Your task to perform on an android device: Go to Google Image 0: 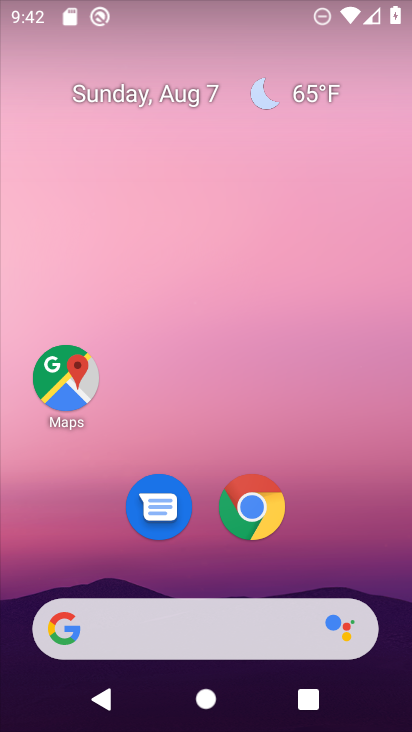
Step 0: drag from (323, 521) to (255, 134)
Your task to perform on an android device: Go to Google Image 1: 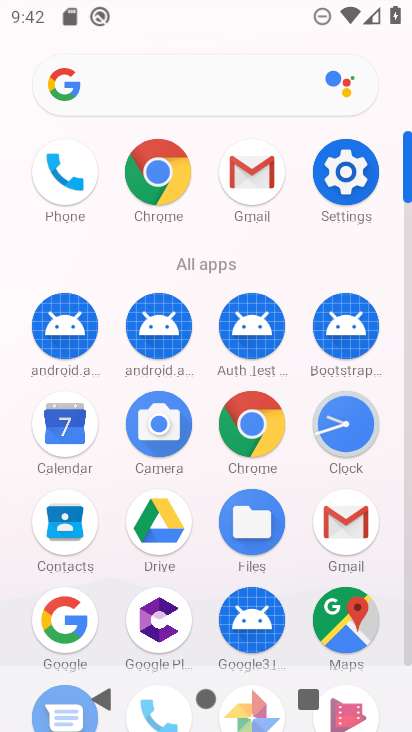
Step 1: click (256, 121)
Your task to perform on an android device: Go to Google Image 2: 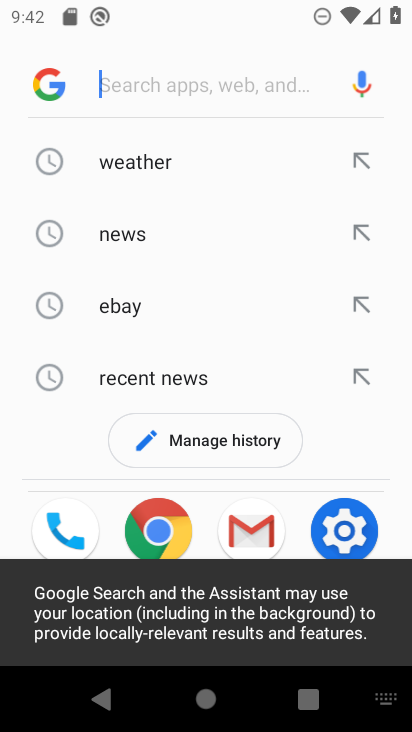
Step 2: press home button
Your task to perform on an android device: Go to Google Image 3: 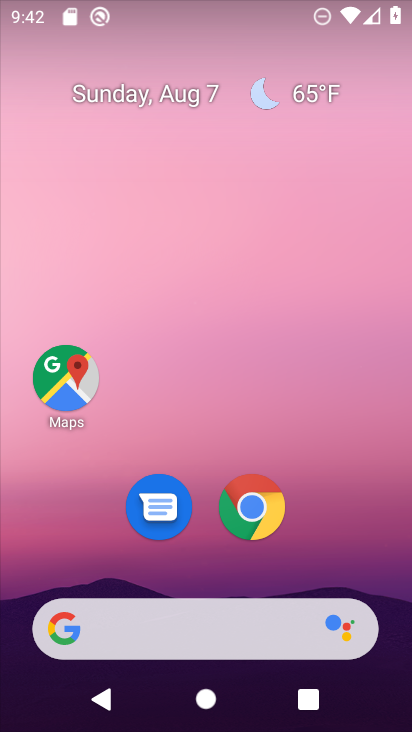
Step 3: drag from (336, 543) to (321, 15)
Your task to perform on an android device: Go to Google Image 4: 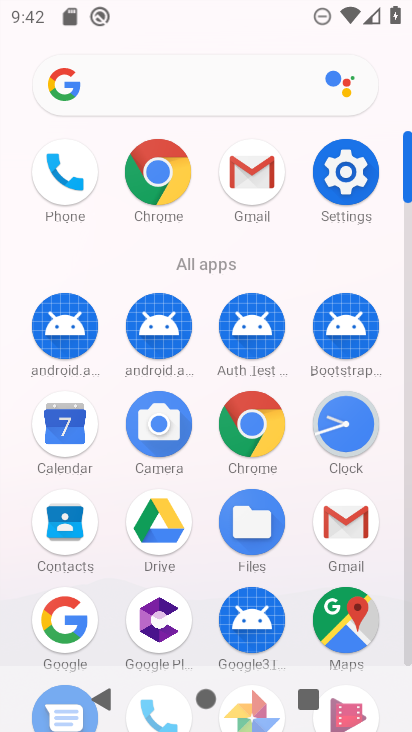
Step 4: click (70, 626)
Your task to perform on an android device: Go to Google Image 5: 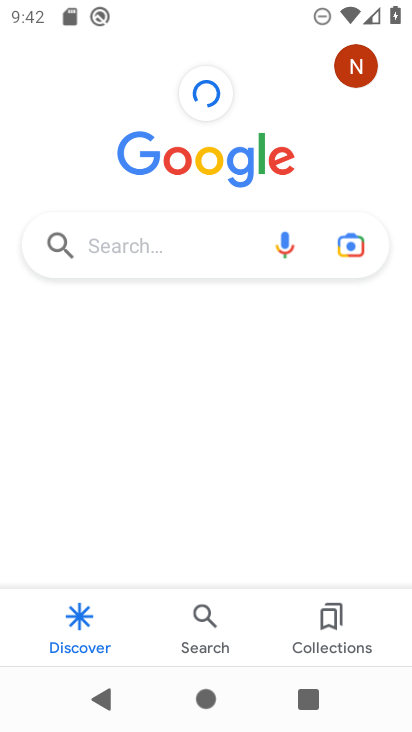
Step 5: task complete